Your task to perform on an android device: turn on sleep mode Image 0: 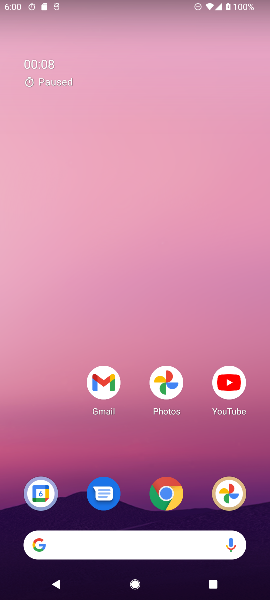
Step 0: drag from (154, 276) to (144, 222)
Your task to perform on an android device: turn on sleep mode Image 1: 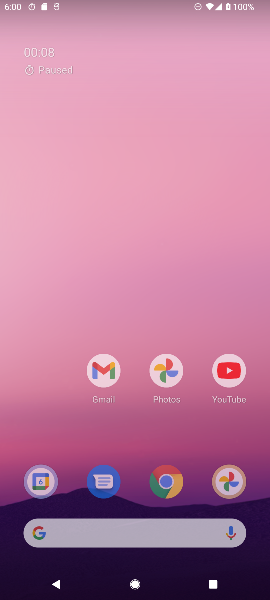
Step 1: drag from (189, 439) to (135, 185)
Your task to perform on an android device: turn on sleep mode Image 2: 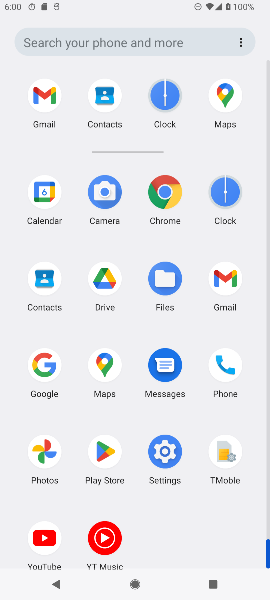
Step 2: drag from (129, 418) to (132, 138)
Your task to perform on an android device: turn on sleep mode Image 3: 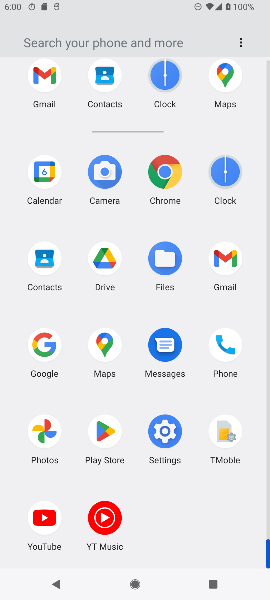
Step 3: click (165, 431)
Your task to perform on an android device: turn on sleep mode Image 4: 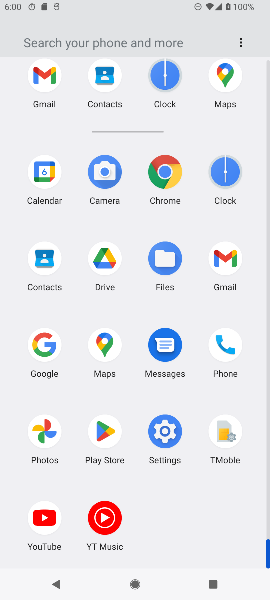
Step 4: click (165, 431)
Your task to perform on an android device: turn on sleep mode Image 5: 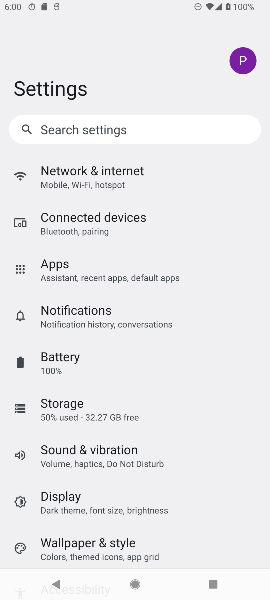
Step 5: drag from (70, 539) to (46, 356)
Your task to perform on an android device: turn on sleep mode Image 6: 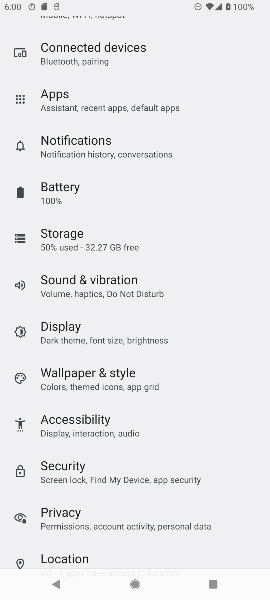
Step 6: drag from (114, 473) to (109, 344)
Your task to perform on an android device: turn on sleep mode Image 7: 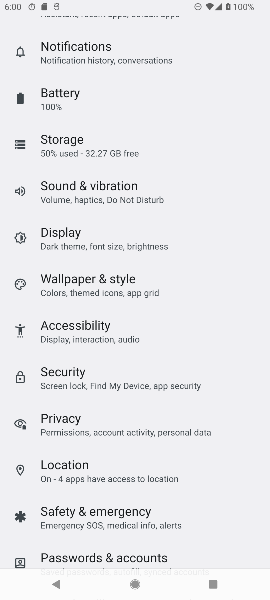
Step 7: drag from (100, 521) to (106, 293)
Your task to perform on an android device: turn on sleep mode Image 8: 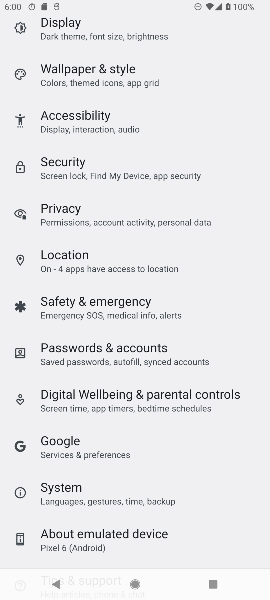
Step 8: drag from (147, 492) to (147, 361)
Your task to perform on an android device: turn on sleep mode Image 9: 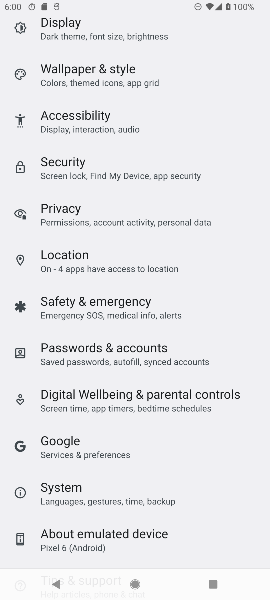
Step 9: drag from (75, 134) to (5, 365)
Your task to perform on an android device: turn on sleep mode Image 10: 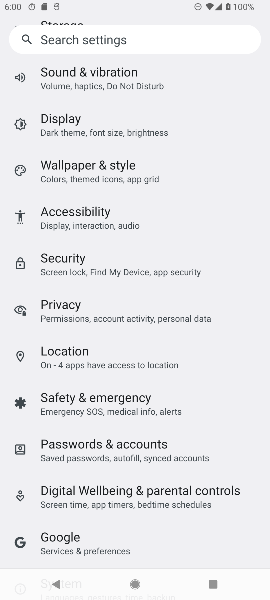
Step 10: click (65, 125)
Your task to perform on an android device: turn on sleep mode Image 11: 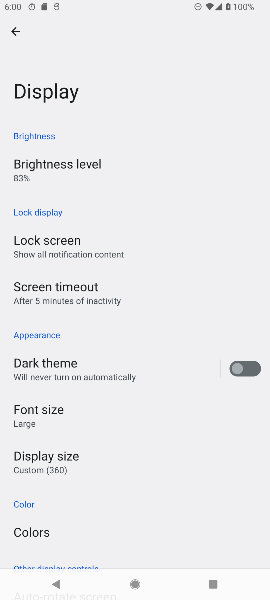
Step 11: click (44, 298)
Your task to perform on an android device: turn on sleep mode Image 12: 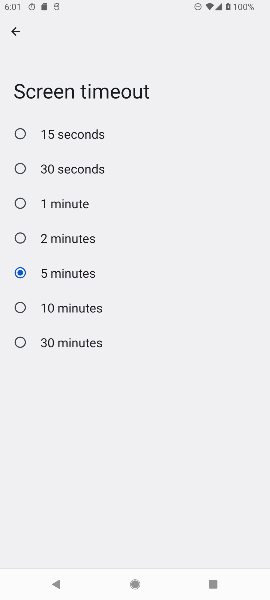
Step 12: task complete